Your task to perform on an android device: change the clock display to digital Image 0: 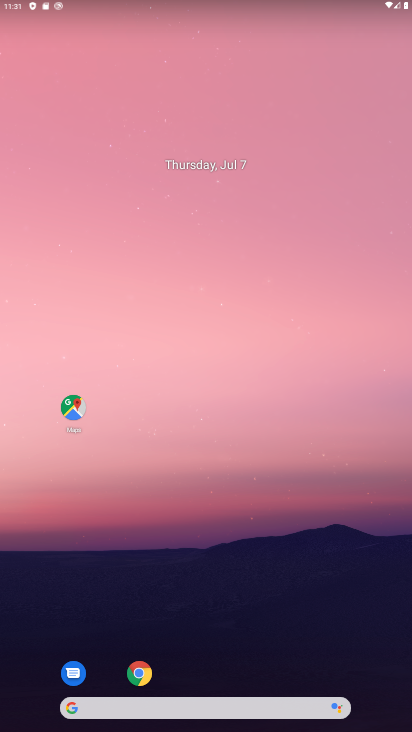
Step 0: drag from (222, 622) to (249, 59)
Your task to perform on an android device: change the clock display to digital Image 1: 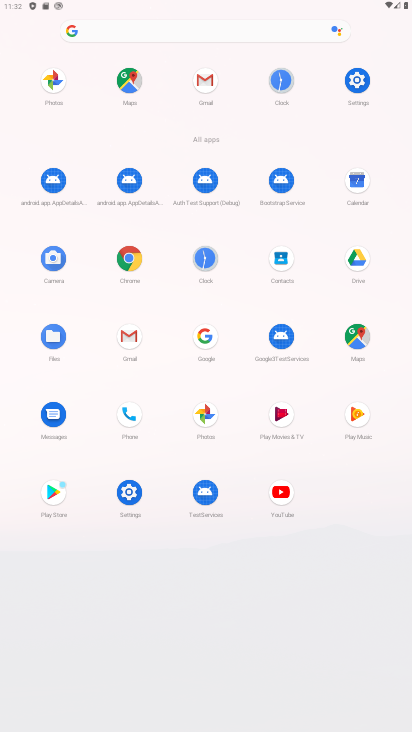
Step 1: click (205, 258)
Your task to perform on an android device: change the clock display to digital Image 2: 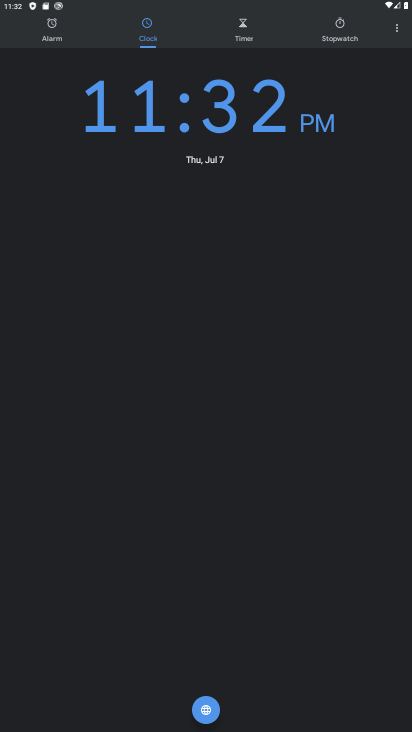
Step 2: click (397, 31)
Your task to perform on an android device: change the clock display to digital Image 3: 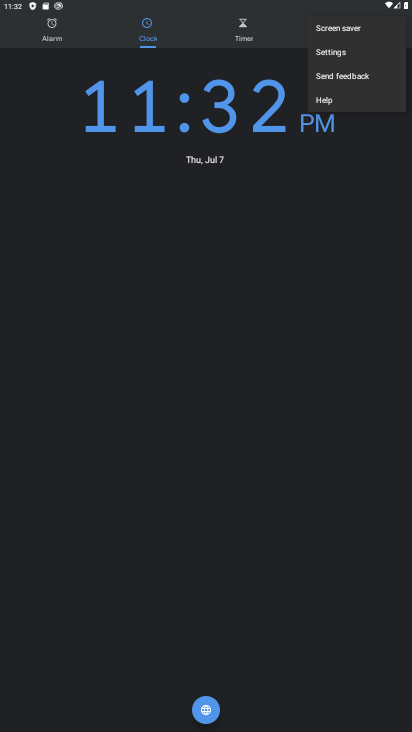
Step 3: click (342, 51)
Your task to perform on an android device: change the clock display to digital Image 4: 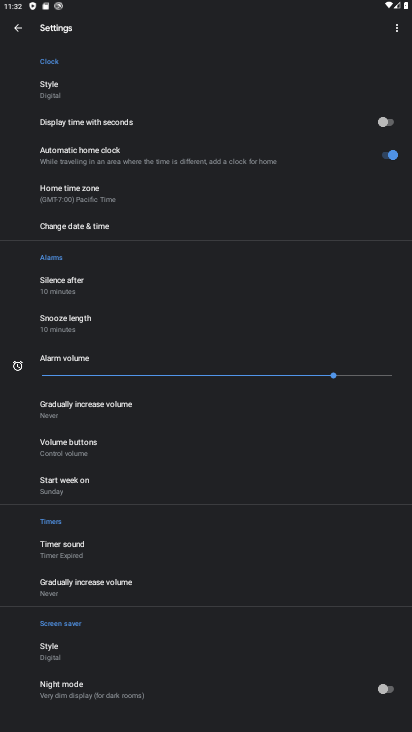
Step 4: click (80, 90)
Your task to perform on an android device: change the clock display to digital Image 5: 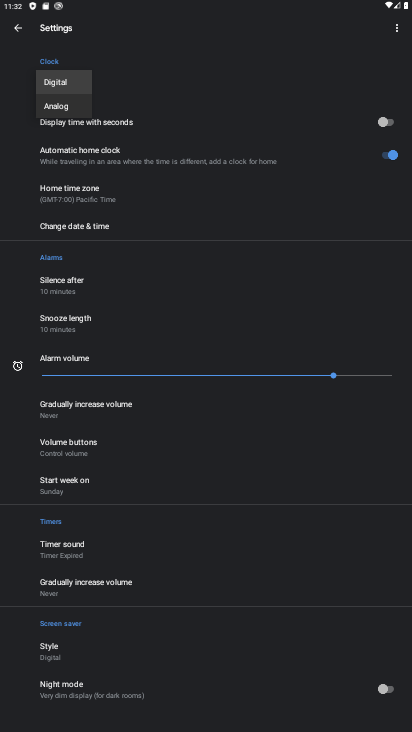
Step 5: click (80, 90)
Your task to perform on an android device: change the clock display to digital Image 6: 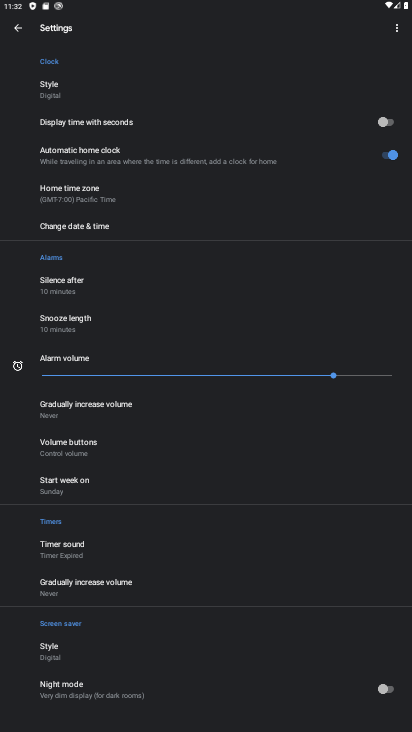
Step 6: task complete